Your task to perform on an android device: toggle translation in the chrome app Image 0: 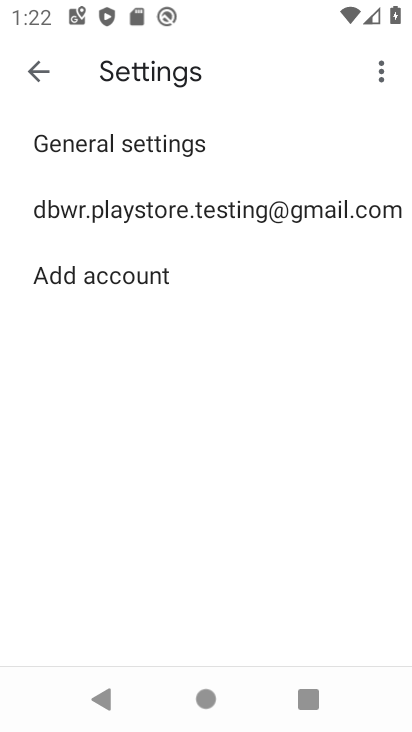
Step 0: press home button
Your task to perform on an android device: toggle translation in the chrome app Image 1: 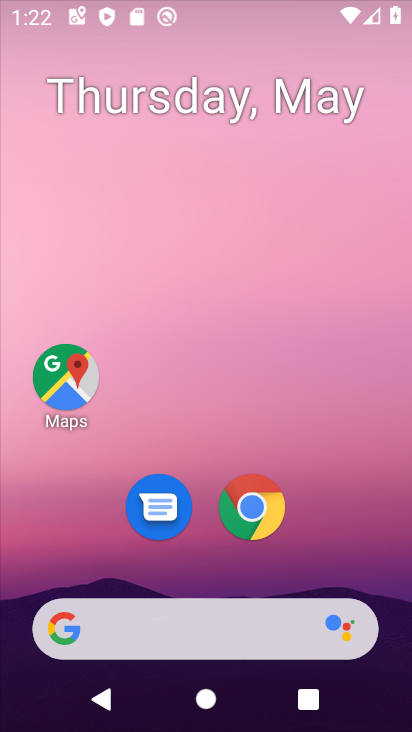
Step 1: drag from (281, 530) to (287, 127)
Your task to perform on an android device: toggle translation in the chrome app Image 2: 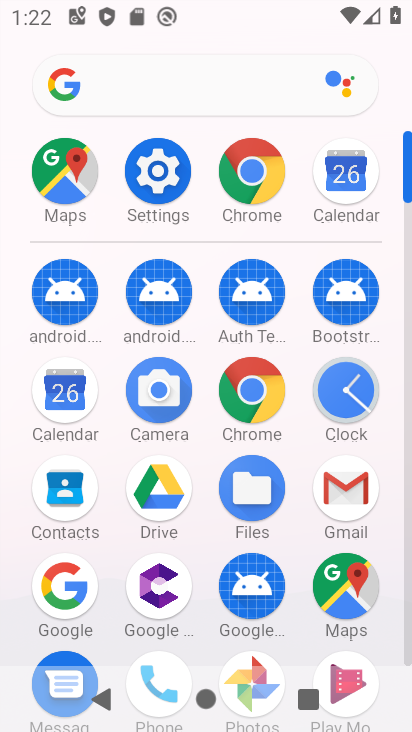
Step 2: click (269, 390)
Your task to perform on an android device: toggle translation in the chrome app Image 3: 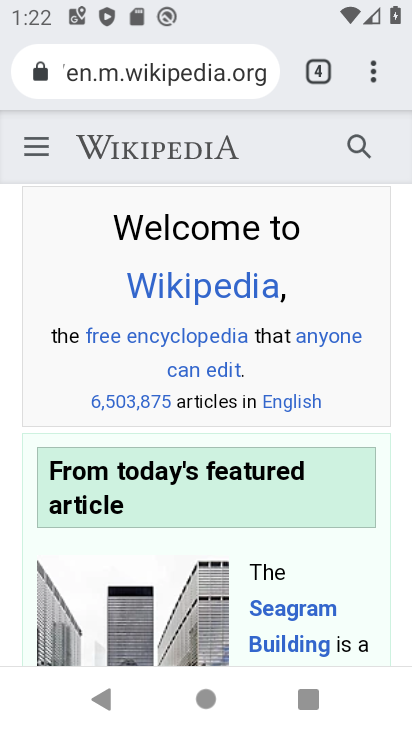
Step 3: click (341, 258)
Your task to perform on an android device: toggle translation in the chrome app Image 4: 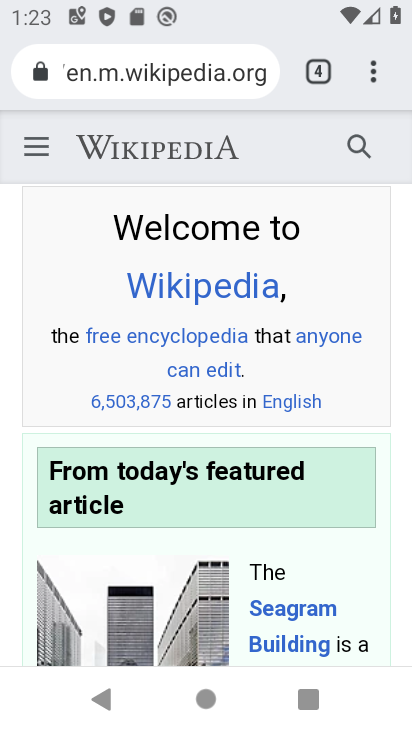
Step 4: drag from (376, 65) to (155, 502)
Your task to perform on an android device: toggle translation in the chrome app Image 5: 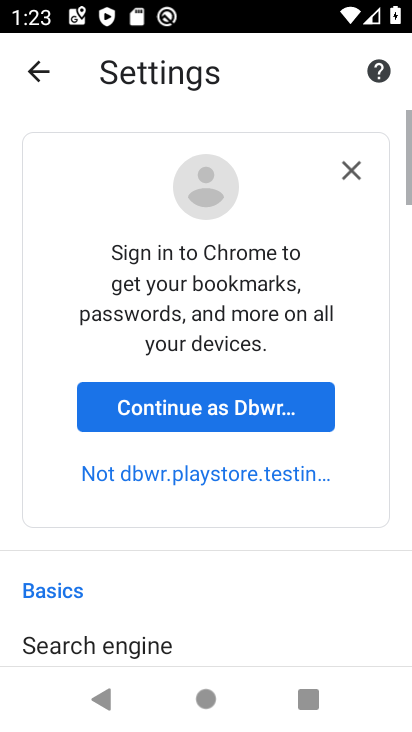
Step 5: drag from (292, 541) to (402, 471)
Your task to perform on an android device: toggle translation in the chrome app Image 6: 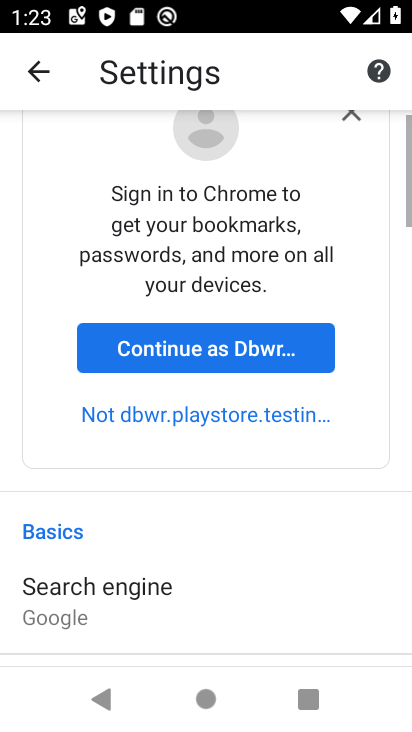
Step 6: drag from (277, 583) to (255, 107)
Your task to perform on an android device: toggle translation in the chrome app Image 7: 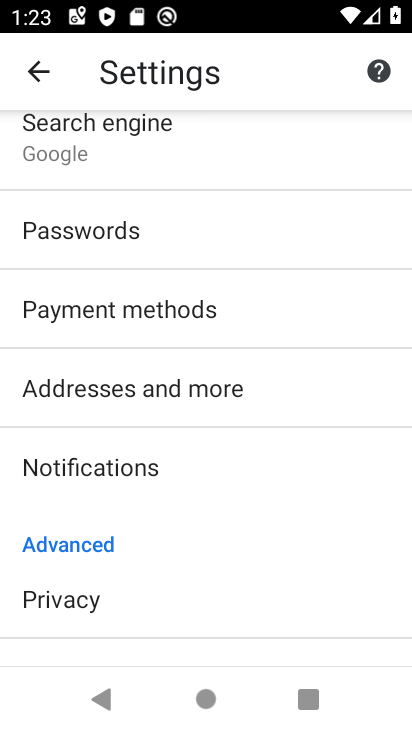
Step 7: drag from (248, 584) to (280, 84)
Your task to perform on an android device: toggle translation in the chrome app Image 8: 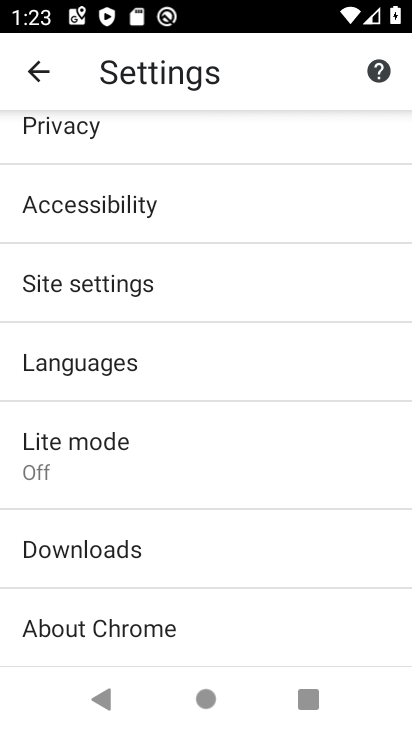
Step 8: click (172, 370)
Your task to perform on an android device: toggle translation in the chrome app Image 9: 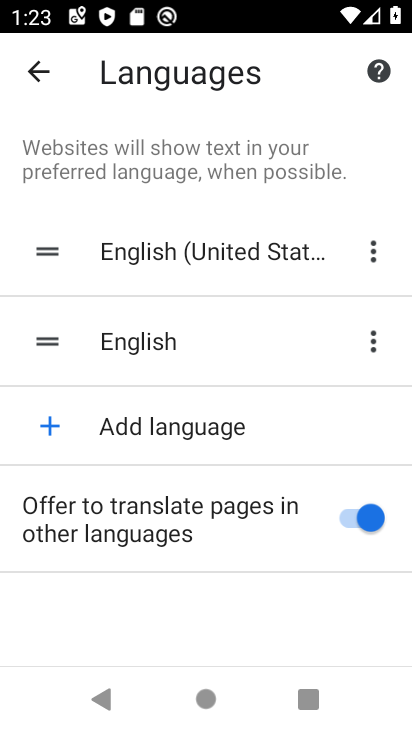
Step 9: task complete